Your task to perform on an android device: turn pop-ups off in chrome Image 0: 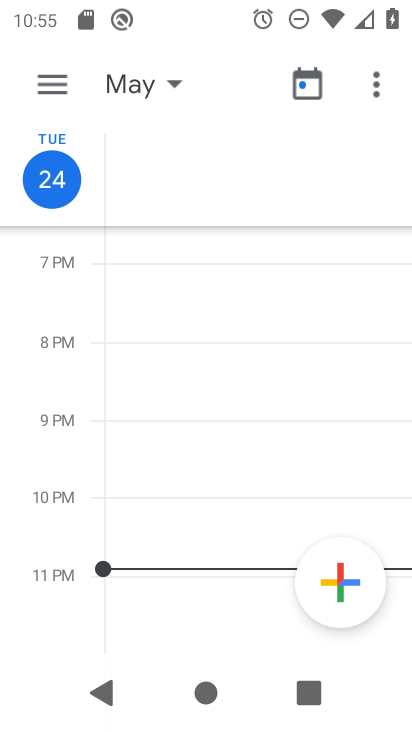
Step 0: press home button
Your task to perform on an android device: turn pop-ups off in chrome Image 1: 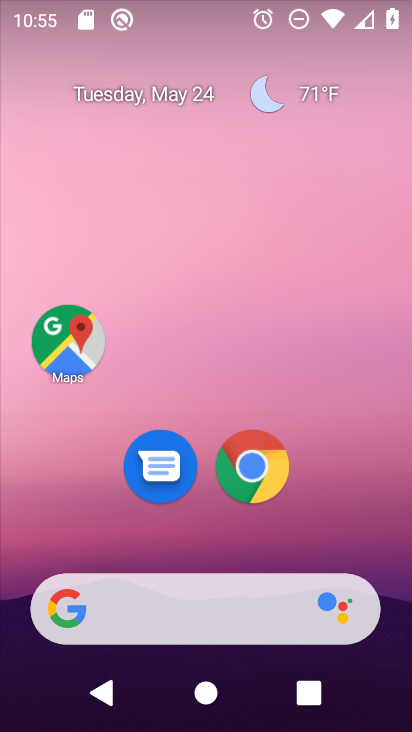
Step 1: drag from (198, 531) to (301, 112)
Your task to perform on an android device: turn pop-ups off in chrome Image 2: 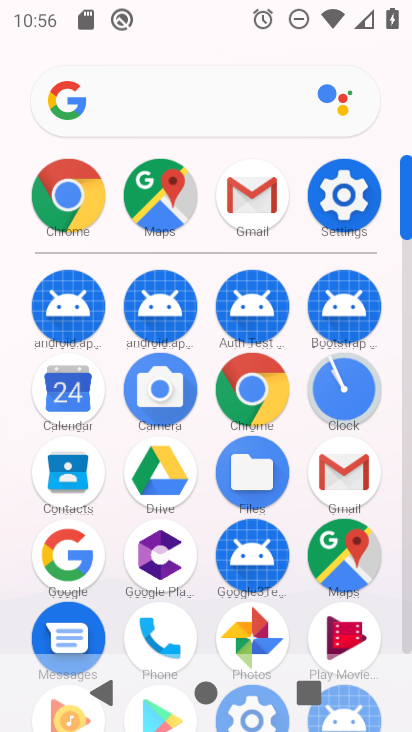
Step 2: click (261, 394)
Your task to perform on an android device: turn pop-ups off in chrome Image 3: 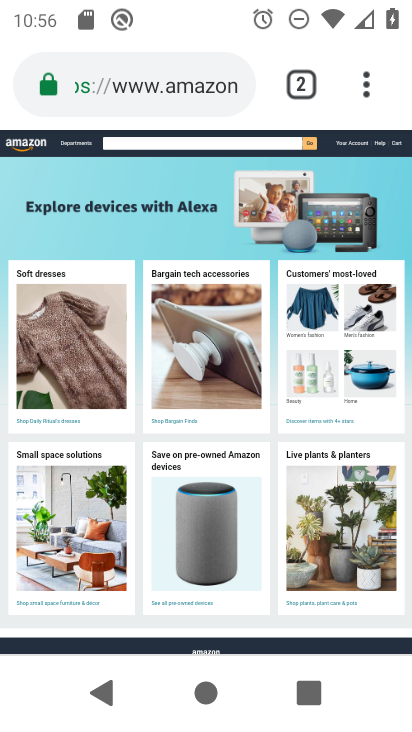
Step 3: click (366, 82)
Your task to perform on an android device: turn pop-ups off in chrome Image 4: 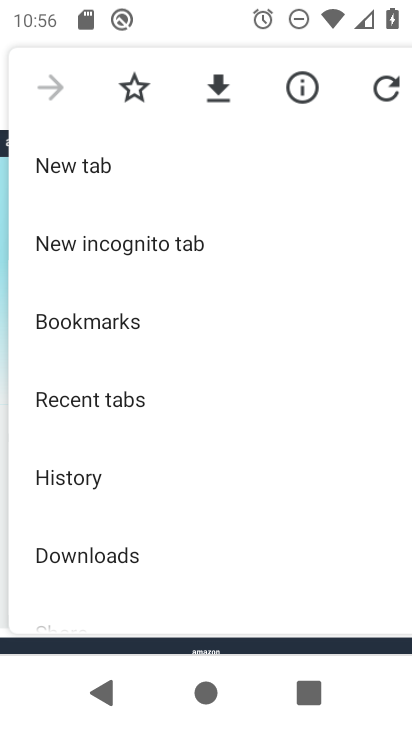
Step 4: drag from (107, 507) to (184, 237)
Your task to perform on an android device: turn pop-ups off in chrome Image 5: 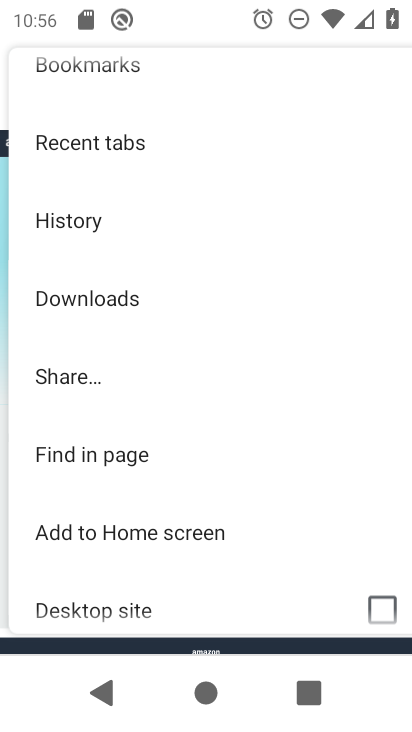
Step 5: drag from (151, 567) to (236, 293)
Your task to perform on an android device: turn pop-ups off in chrome Image 6: 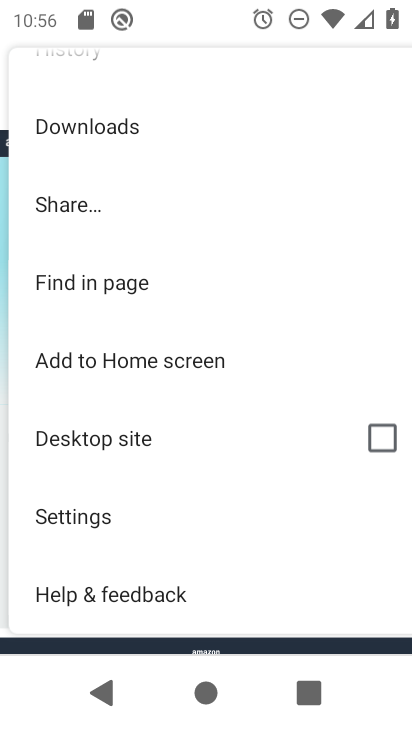
Step 6: click (100, 526)
Your task to perform on an android device: turn pop-ups off in chrome Image 7: 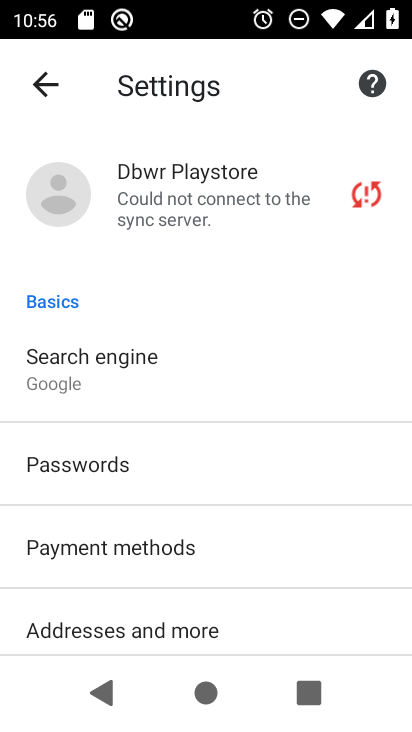
Step 7: drag from (107, 525) to (196, 235)
Your task to perform on an android device: turn pop-ups off in chrome Image 8: 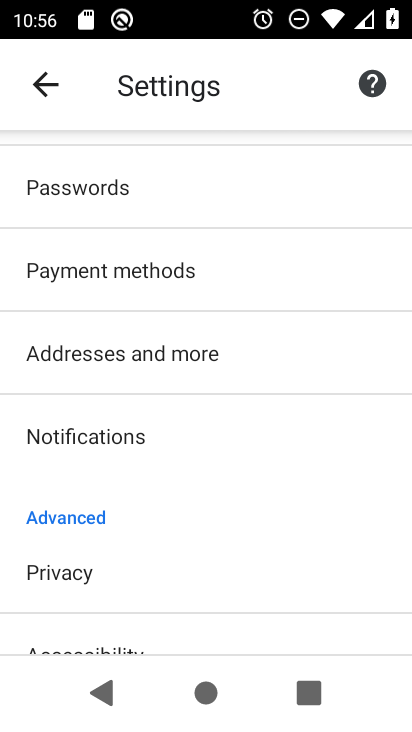
Step 8: drag from (136, 542) to (230, 285)
Your task to perform on an android device: turn pop-ups off in chrome Image 9: 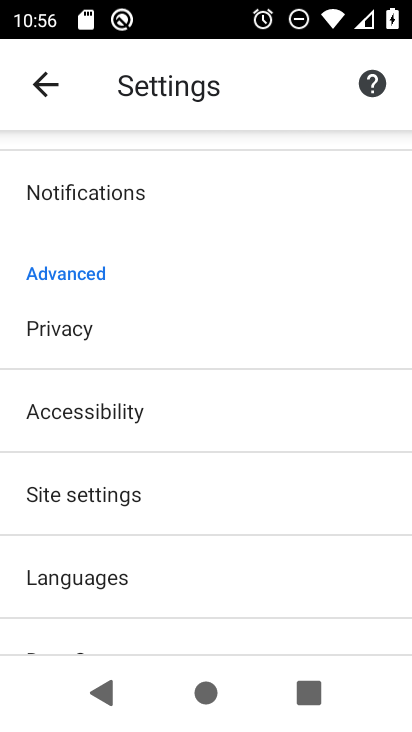
Step 9: click (133, 501)
Your task to perform on an android device: turn pop-ups off in chrome Image 10: 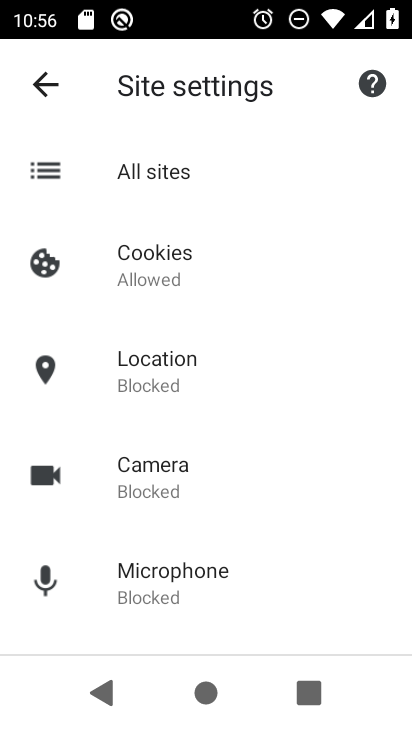
Step 10: drag from (175, 517) to (260, 249)
Your task to perform on an android device: turn pop-ups off in chrome Image 11: 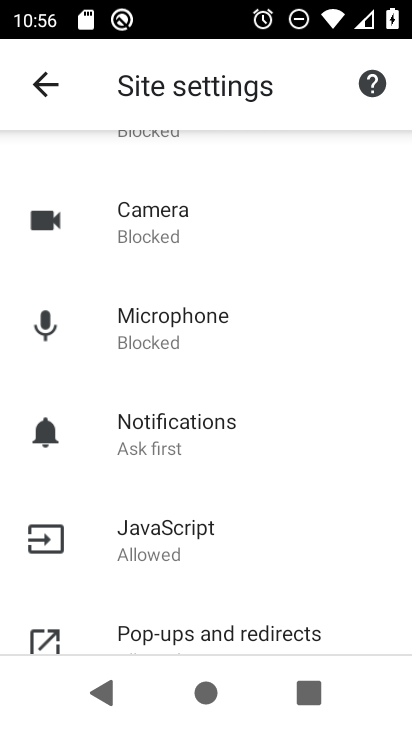
Step 11: drag from (187, 556) to (282, 290)
Your task to perform on an android device: turn pop-ups off in chrome Image 12: 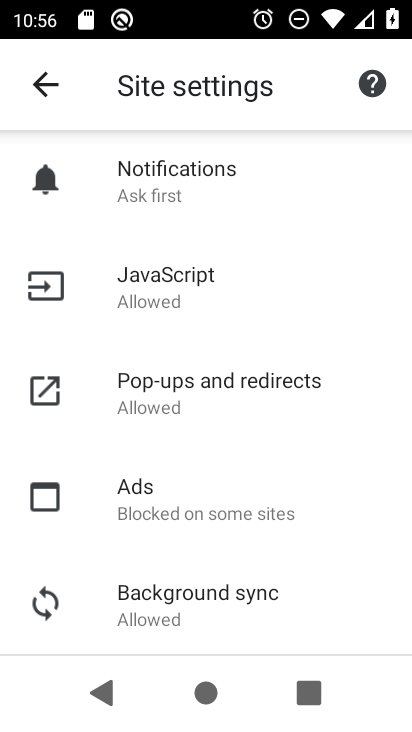
Step 12: click (221, 393)
Your task to perform on an android device: turn pop-ups off in chrome Image 13: 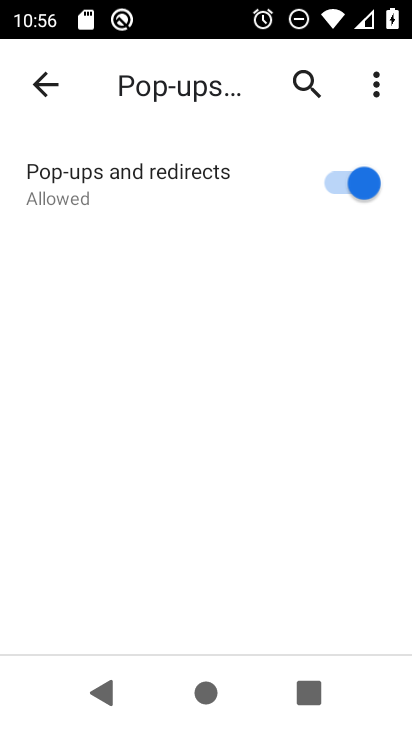
Step 13: click (338, 184)
Your task to perform on an android device: turn pop-ups off in chrome Image 14: 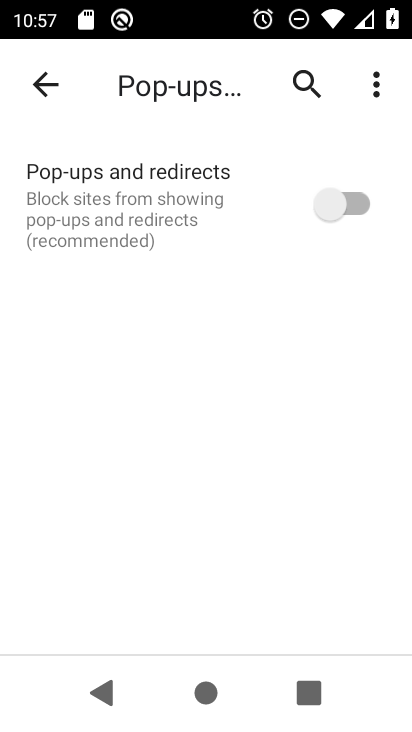
Step 14: task complete